Your task to perform on an android device: Go to settings Image 0: 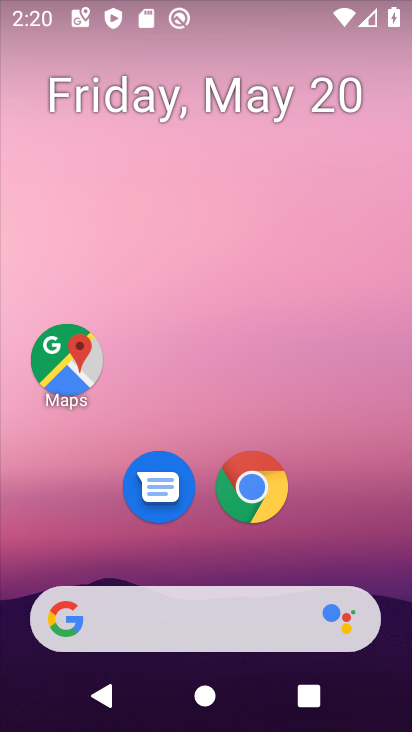
Step 0: click (410, 449)
Your task to perform on an android device: Go to settings Image 1: 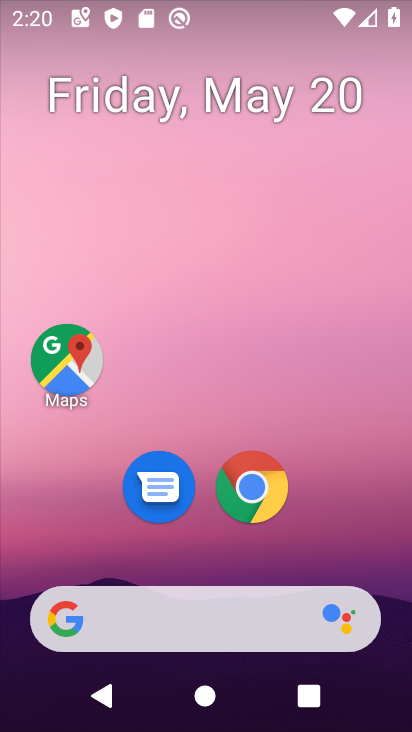
Step 1: drag from (367, 464) to (343, 151)
Your task to perform on an android device: Go to settings Image 2: 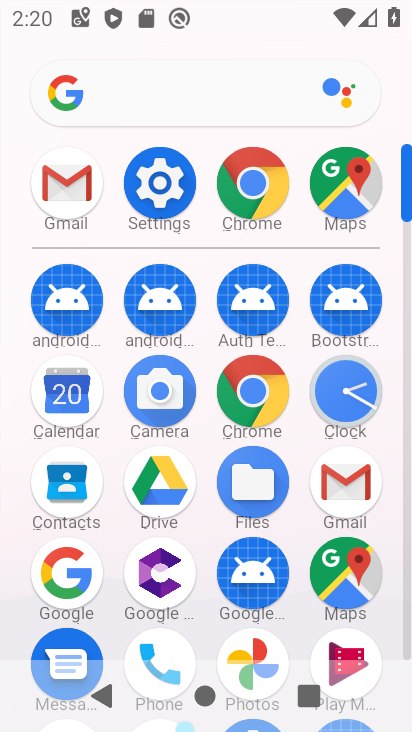
Step 2: click (174, 175)
Your task to perform on an android device: Go to settings Image 3: 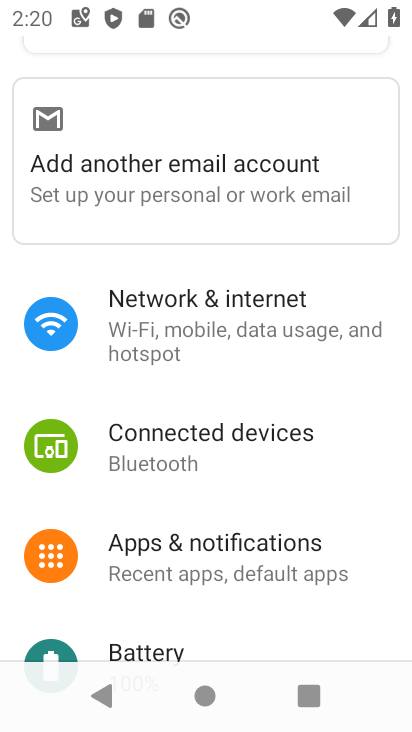
Step 3: task complete